Your task to perform on an android device: turn off translation in the chrome app Image 0: 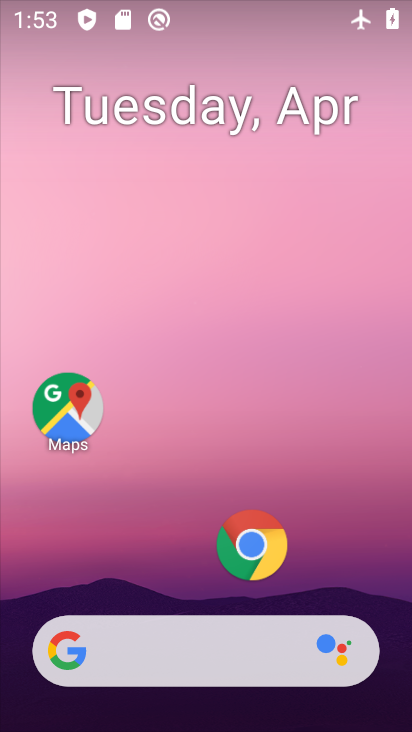
Step 0: drag from (152, 515) to (204, 190)
Your task to perform on an android device: turn off translation in the chrome app Image 1: 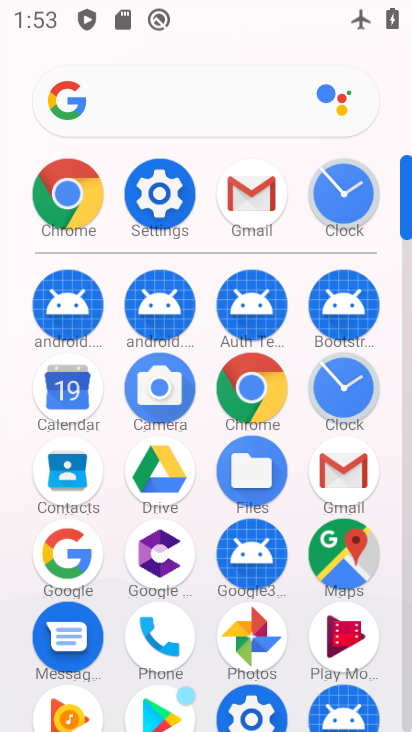
Step 1: click (257, 388)
Your task to perform on an android device: turn off translation in the chrome app Image 2: 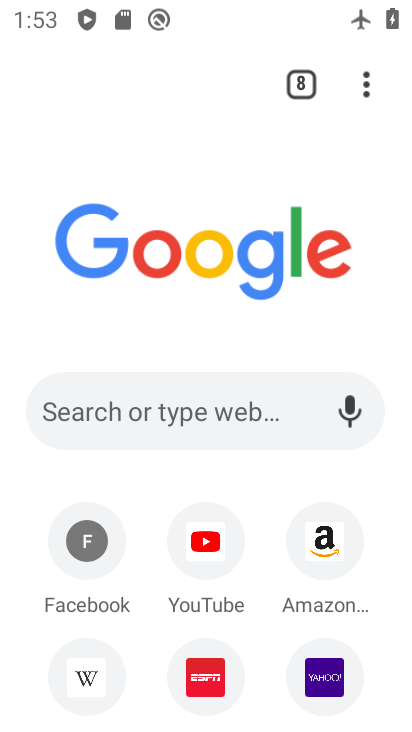
Step 2: click (369, 80)
Your task to perform on an android device: turn off translation in the chrome app Image 3: 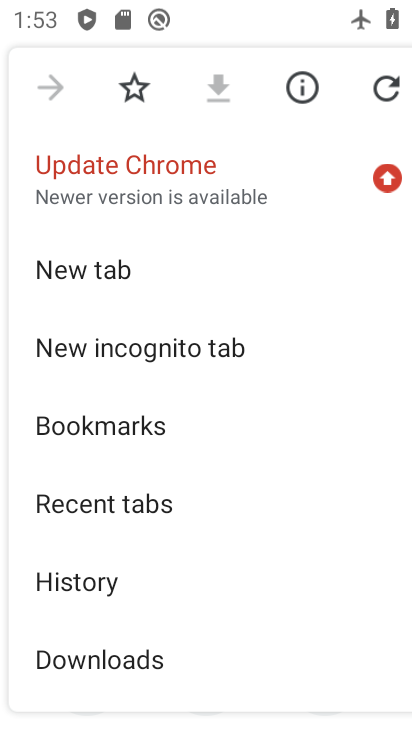
Step 3: drag from (225, 622) to (307, 260)
Your task to perform on an android device: turn off translation in the chrome app Image 4: 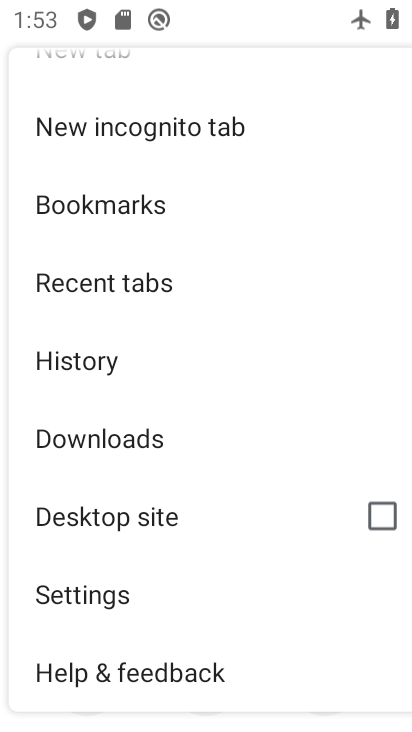
Step 4: click (118, 606)
Your task to perform on an android device: turn off translation in the chrome app Image 5: 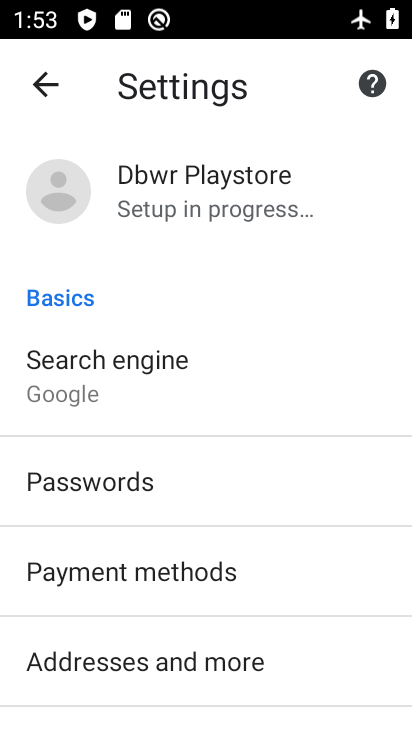
Step 5: drag from (173, 620) to (298, 254)
Your task to perform on an android device: turn off translation in the chrome app Image 6: 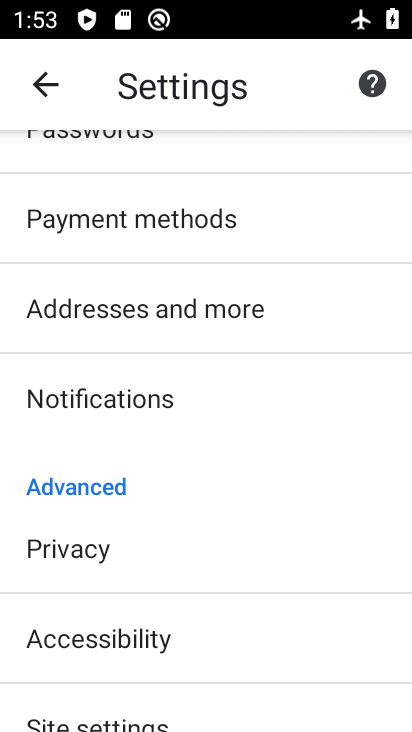
Step 6: drag from (148, 672) to (267, 299)
Your task to perform on an android device: turn off translation in the chrome app Image 7: 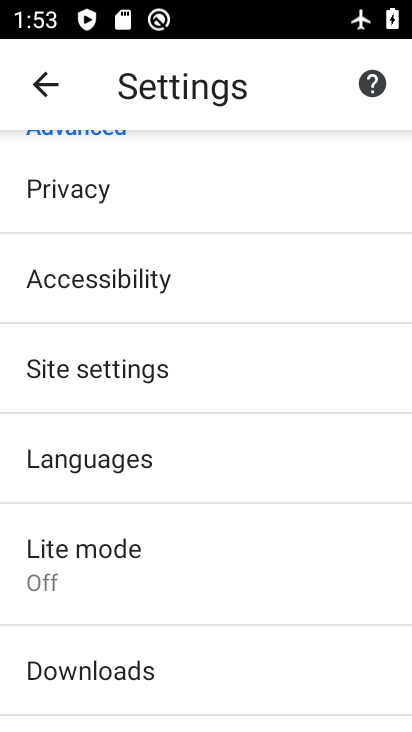
Step 7: click (176, 458)
Your task to perform on an android device: turn off translation in the chrome app Image 8: 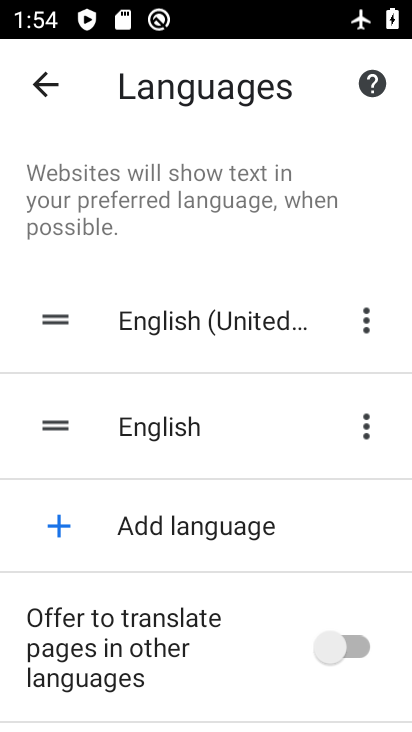
Step 8: task complete